Your task to perform on an android device: Open Google Chrome and click the shortcut for Amazon.com Image 0: 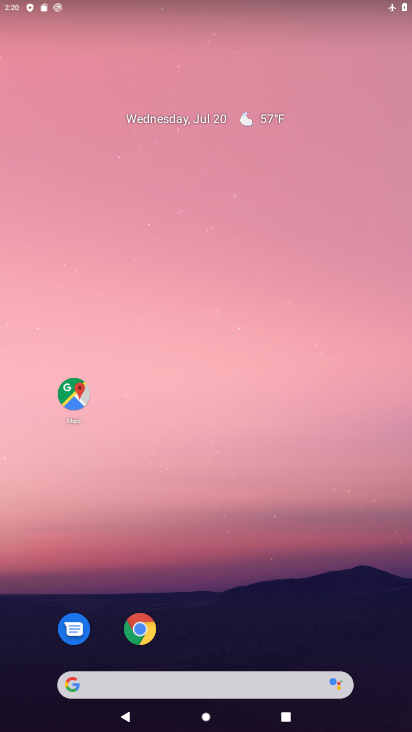
Step 0: click (133, 631)
Your task to perform on an android device: Open Google Chrome and click the shortcut for Amazon.com Image 1: 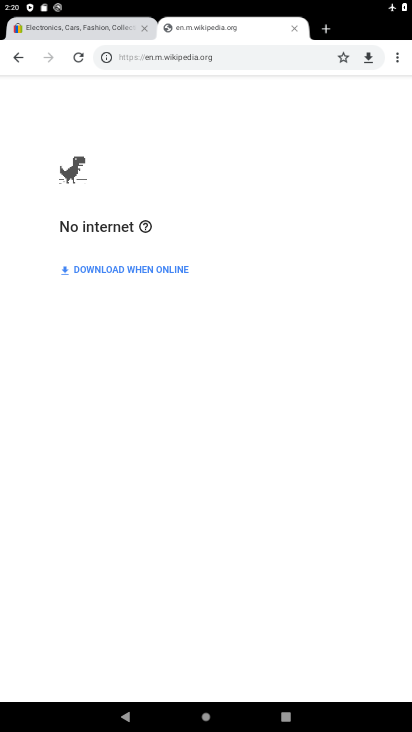
Step 1: click (324, 33)
Your task to perform on an android device: Open Google Chrome and click the shortcut for Amazon.com Image 2: 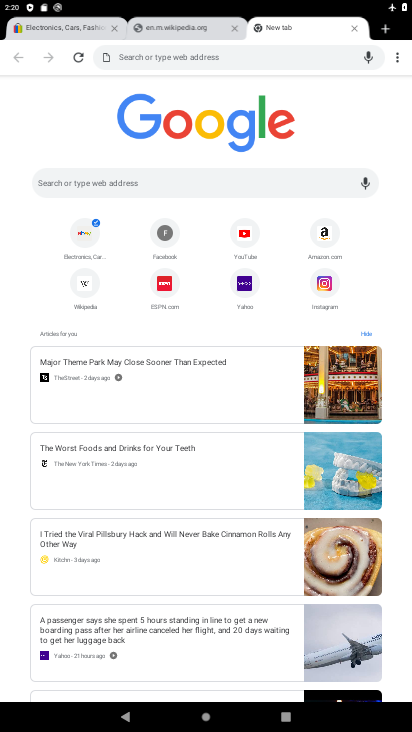
Step 2: click (316, 242)
Your task to perform on an android device: Open Google Chrome and click the shortcut for Amazon.com Image 3: 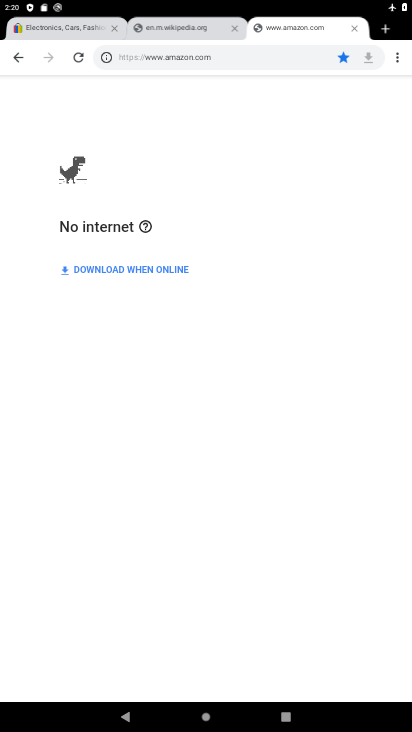
Step 3: task complete